Your task to perform on an android device: manage bookmarks in the chrome app Image 0: 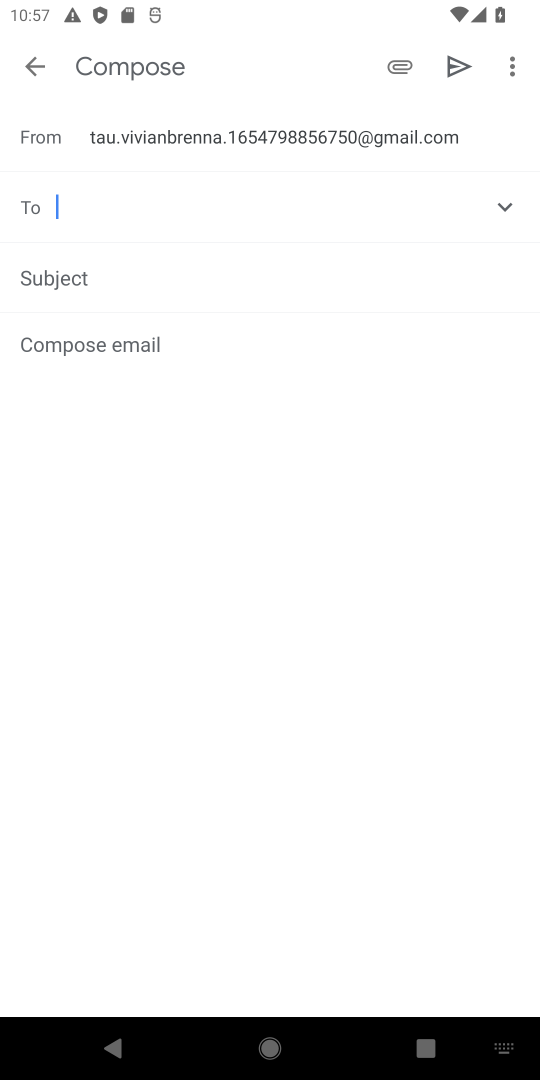
Step 0: press home button
Your task to perform on an android device: manage bookmarks in the chrome app Image 1: 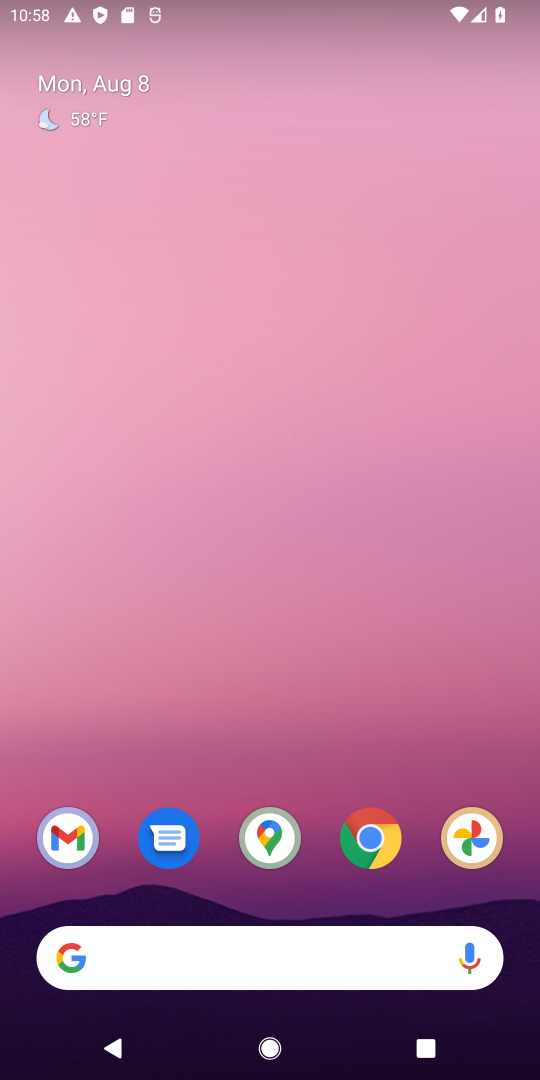
Step 1: click (359, 861)
Your task to perform on an android device: manage bookmarks in the chrome app Image 2: 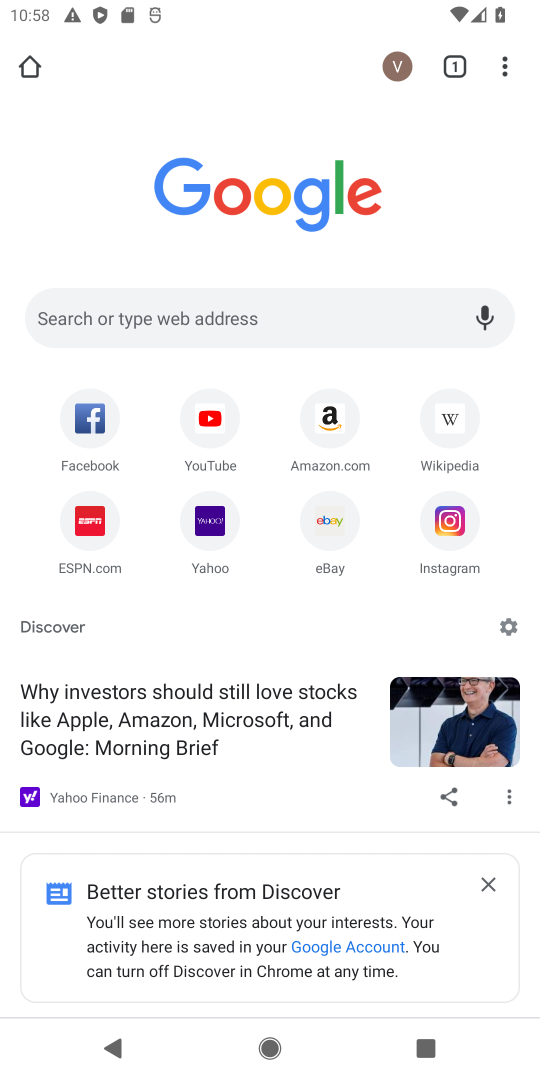
Step 2: drag from (502, 66) to (345, 389)
Your task to perform on an android device: manage bookmarks in the chrome app Image 3: 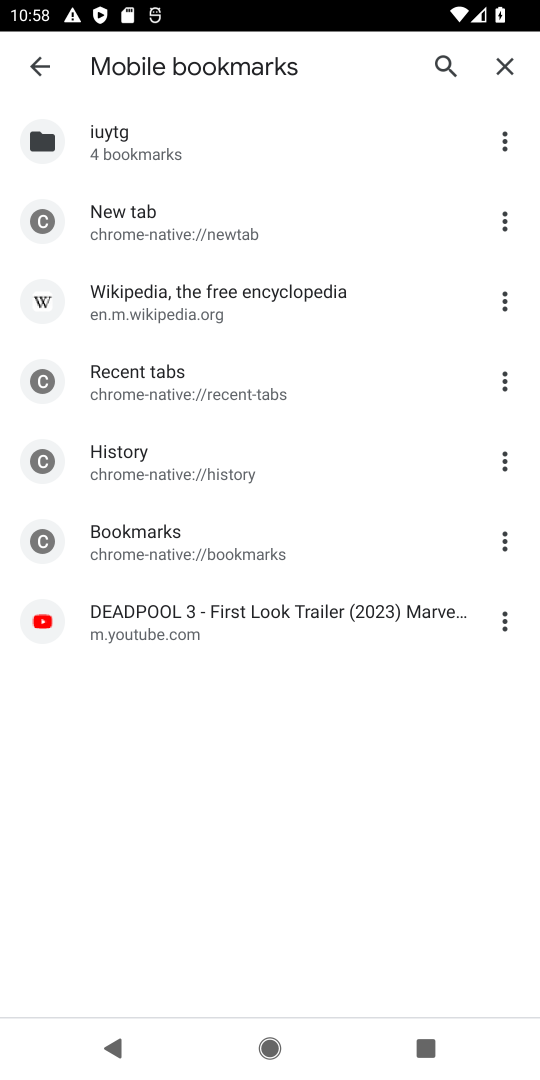
Step 3: click (517, 104)
Your task to perform on an android device: manage bookmarks in the chrome app Image 4: 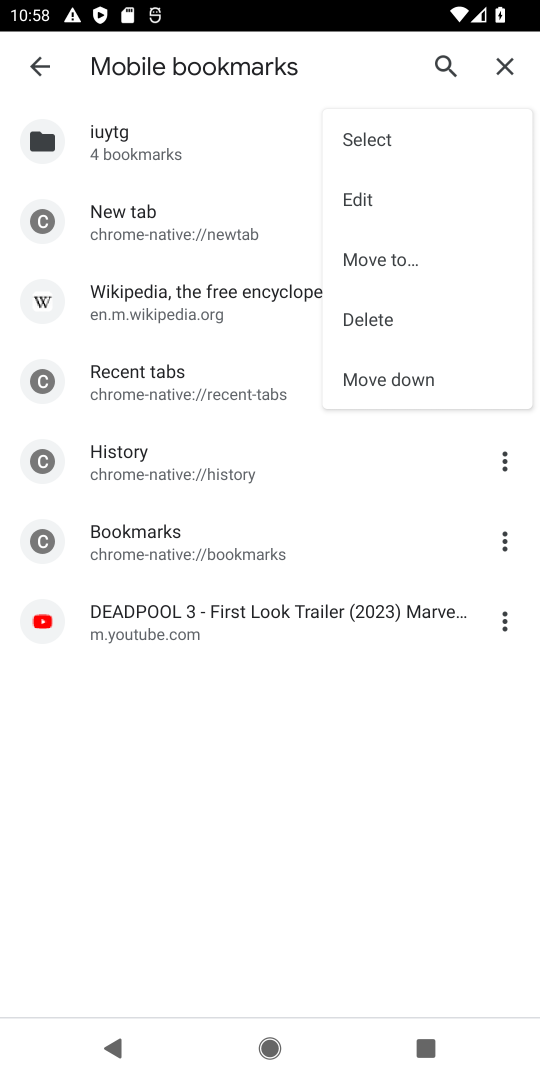
Step 4: click (372, 192)
Your task to perform on an android device: manage bookmarks in the chrome app Image 5: 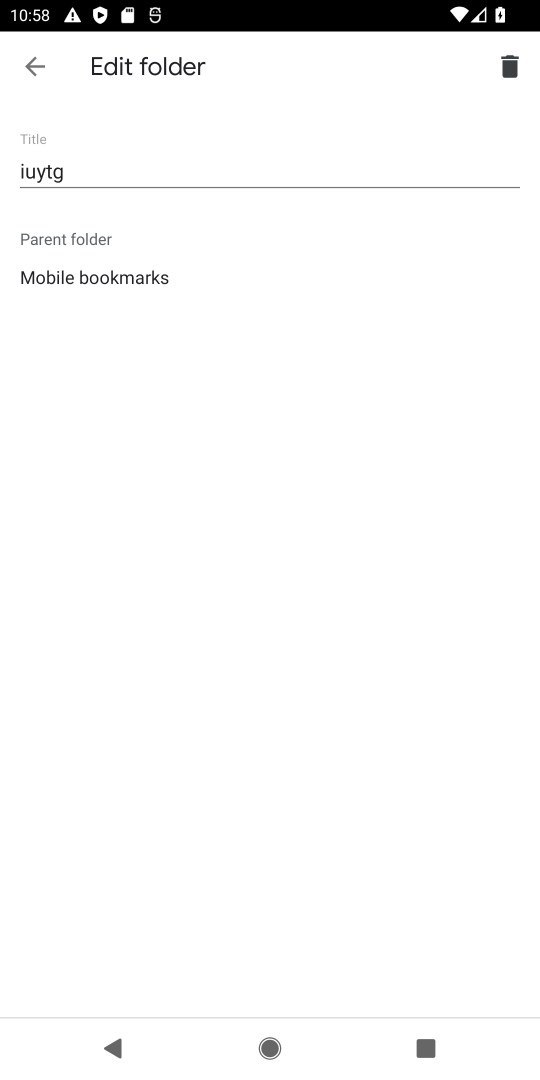
Step 5: task complete